Your task to perform on an android device: allow notifications from all sites in the chrome app Image 0: 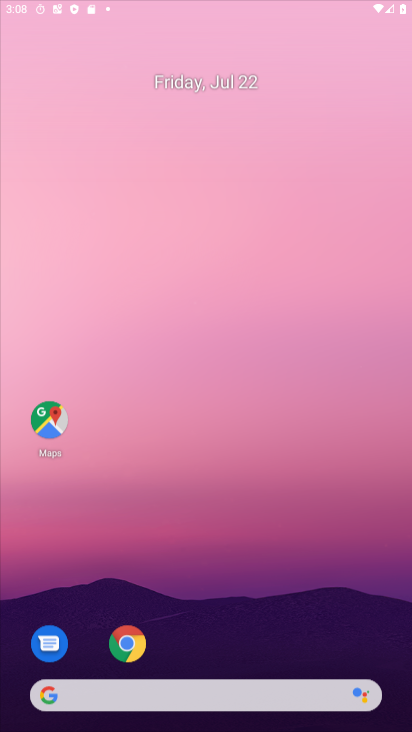
Step 0: press home button
Your task to perform on an android device: allow notifications from all sites in the chrome app Image 1: 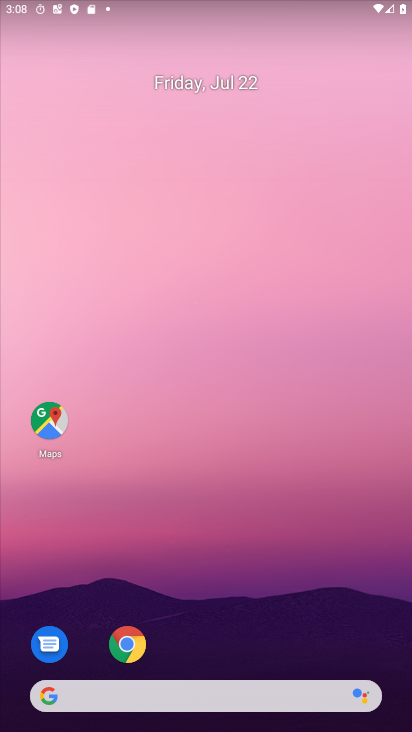
Step 1: drag from (267, 654) to (259, 108)
Your task to perform on an android device: allow notifications from all sites in the chrome app Image 2: 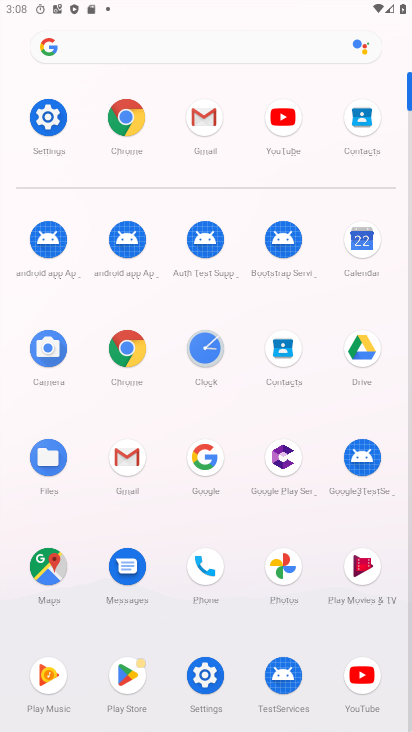
Step 2: click (126, 128)
Your task to perform on an android device: allow notifications from all sites in the chrome app Image 3: 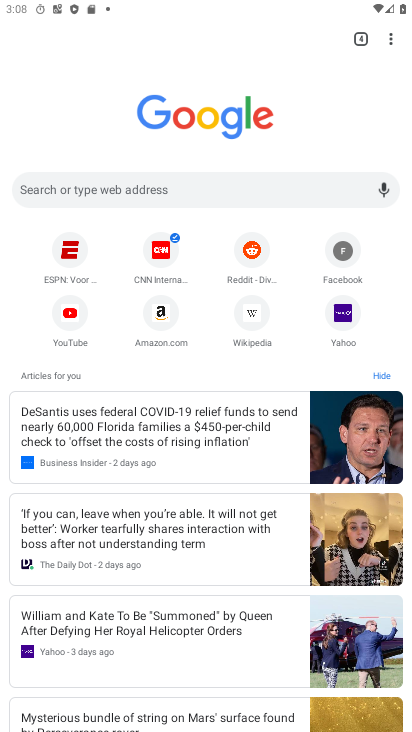
Step 3: drag from (389, 41) to (242, 379)
Your task to perform on an android device: allow notifications from all sites in the chrome app Image 4: 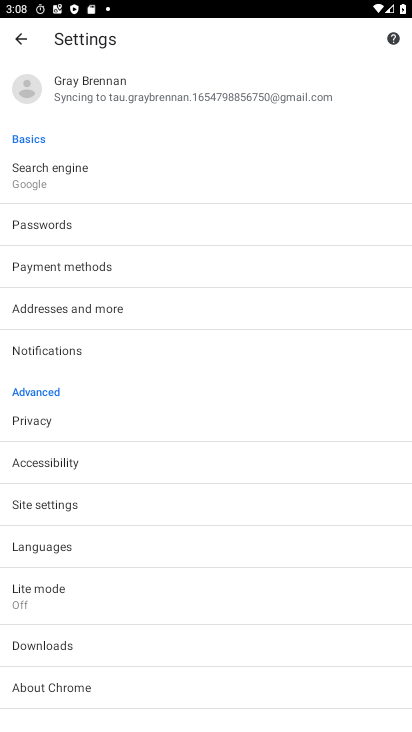
Step 4: click (43, 504)
Your task to perform on an android device: allow notifications from all sites in the chrome app Image 5: 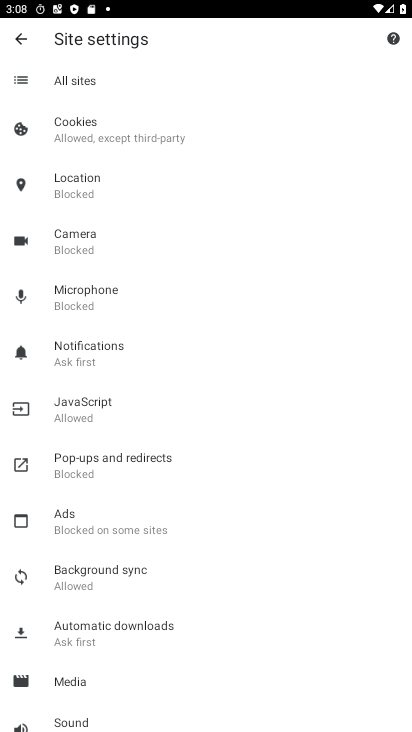
Step 5: click (102, 354)
Your task to perform on an android device: allow notifications from all sites in the chrome app Image 6: 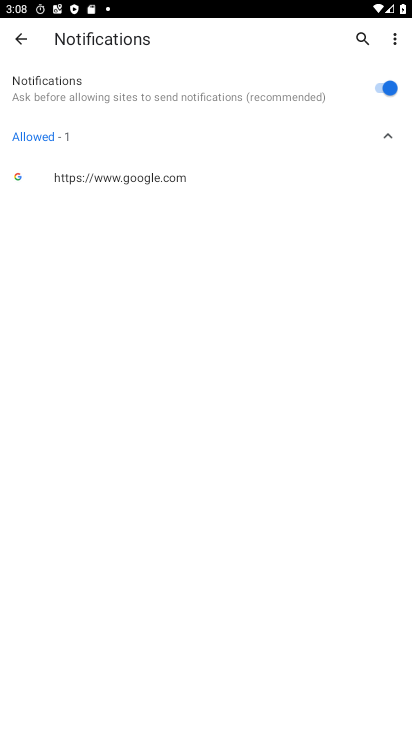
Step 6: task complete